Your task to perform on an android device: Open accessibility settings Image 0: 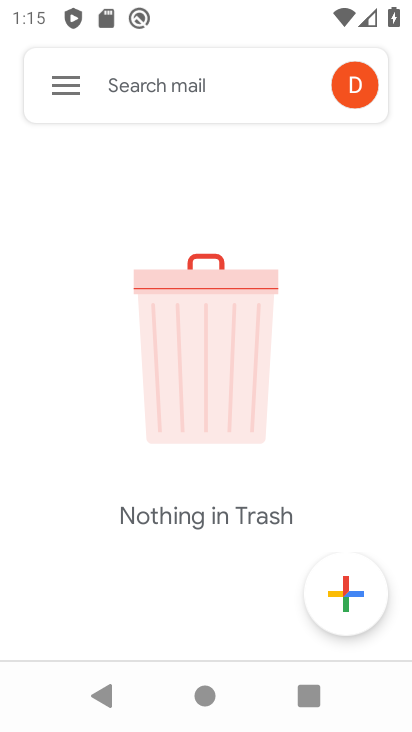
Step 0: press home button
Your task to perform on an android device: Open accessibility settings Image 1: 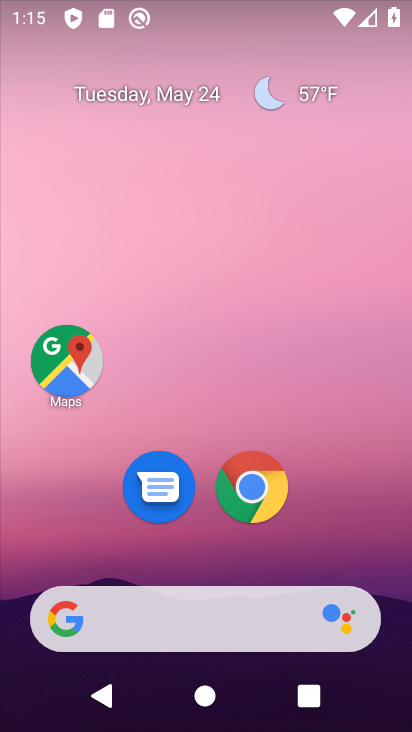
Step 1: drag from (228, 722) to (216, 233)
Your task to perform on an android device: Open accessibility settings Image 2: 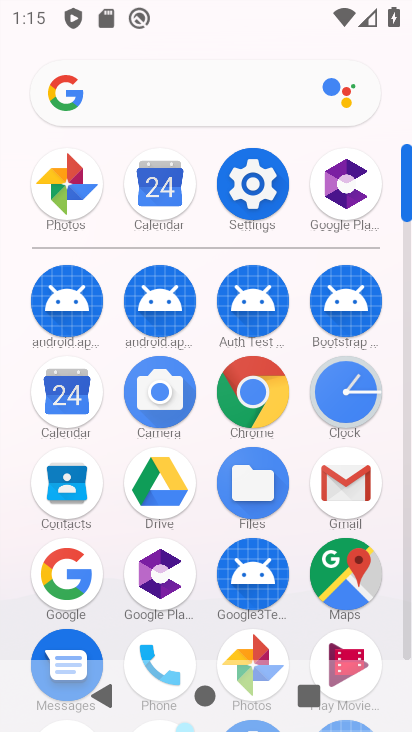
Step 2: click (248, 191)
Your task to perform on an android device: Open accessibility settings Image 3: 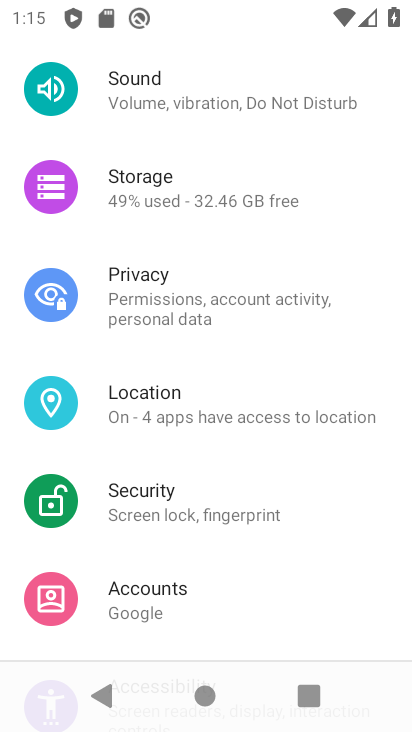
Step 3: drag from (255, 613) to (246, 247)
Your task to perform on an android device: Open accessibility settings Image 4: 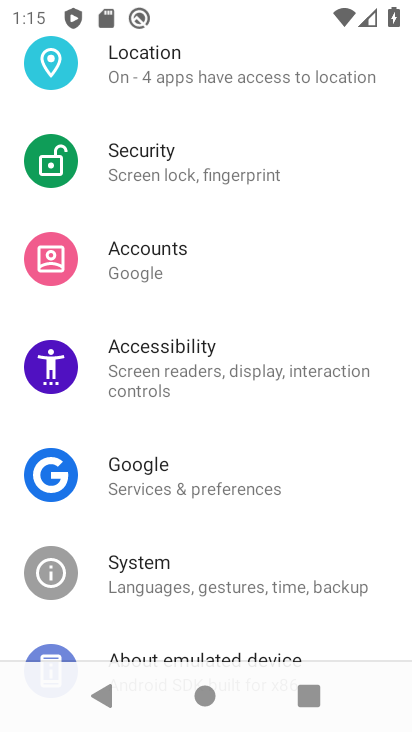
Step 4: click (148, 354)
Your task to perform on an android device: Open accessibility settings Image 5: 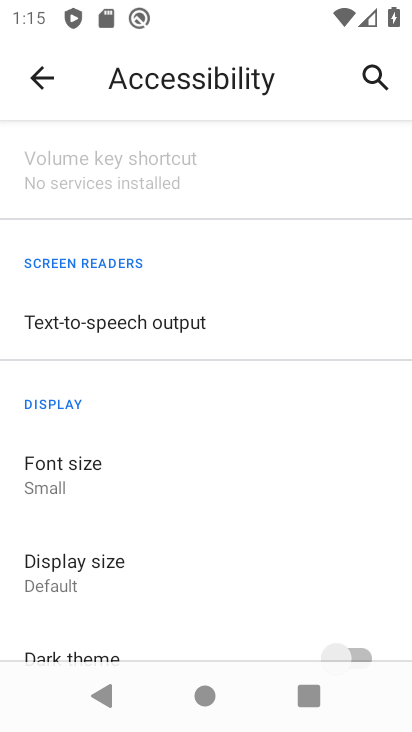
Step 5: task complete